Your task to perform on an android device: Open ESPN.com Image 0: 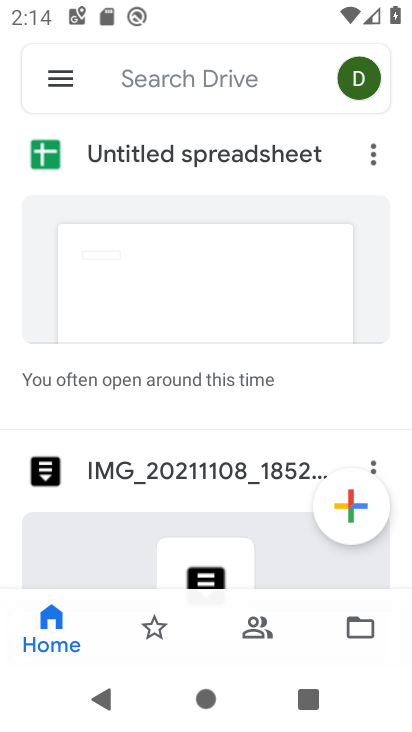
Step 0: press home button
Your task to perform on an android device: Open ESPN.com Image 1: 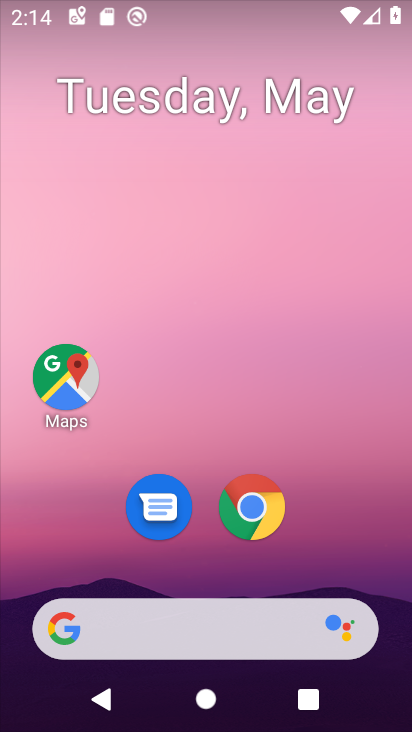
Step 1: drag from (231, 573) to (220, 172)
Your task to perform on an android device: Open ESPN.com Image 2: 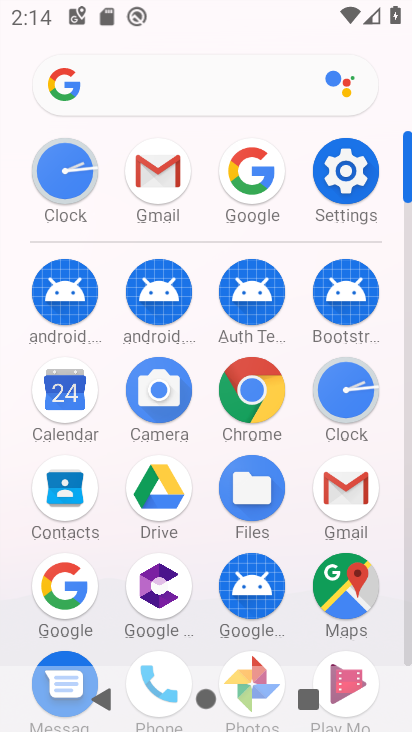
Step 2: click (223, 175)
Your task to perform on an android device: Open ESPN.com Image 3: 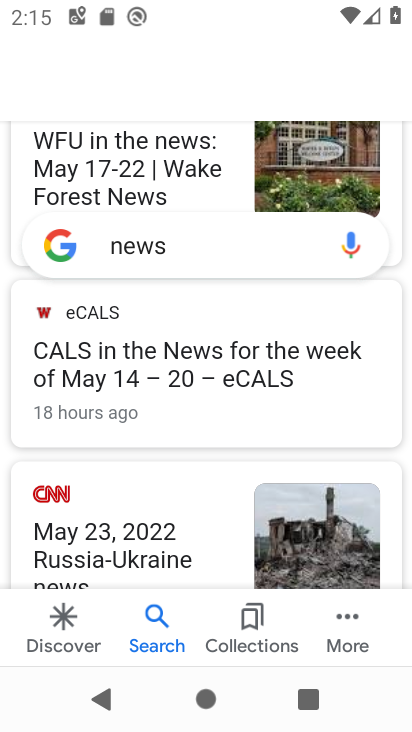
Step 3: press home button
Your task to perform on an android device: Open ESPN.com Image 4: 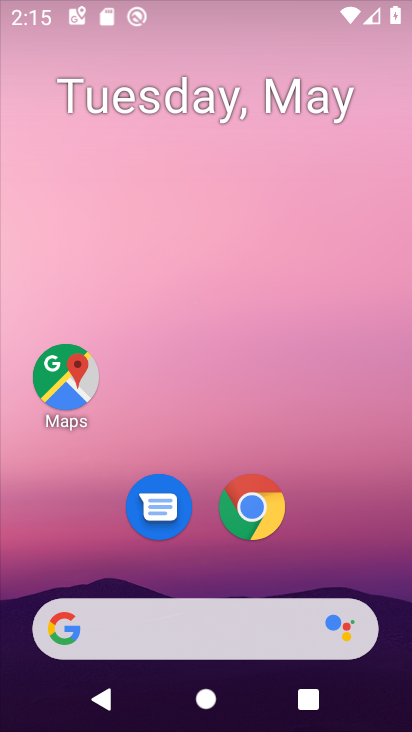
Step 4: click (226, 499)
Your task to perform on an android device: Open ESPN.com Image 5: 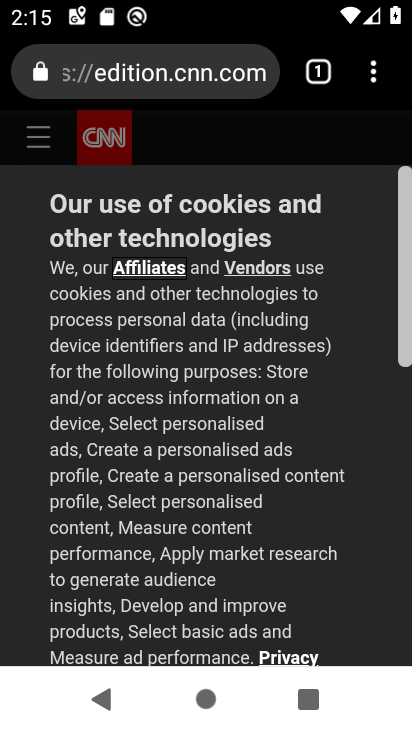
Step 5: click (317, 82)
Your task to perform on an android device: Open ESPN.com Image 6: 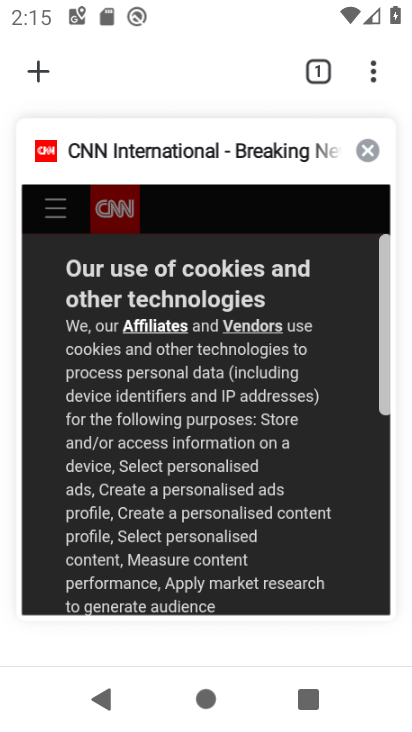
Step 6: click (30, 75)
Your task to perform on an android device: Open ESPN.com Image 7: 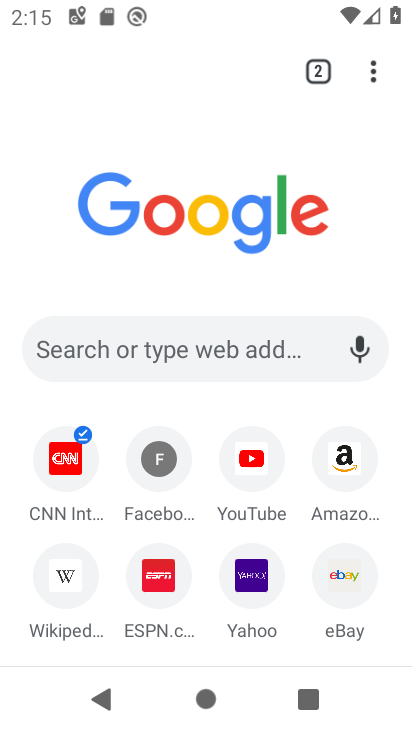
Step 7: click (167, 564)
Your task to perform on an android device: Open ESPN.com Image 8: 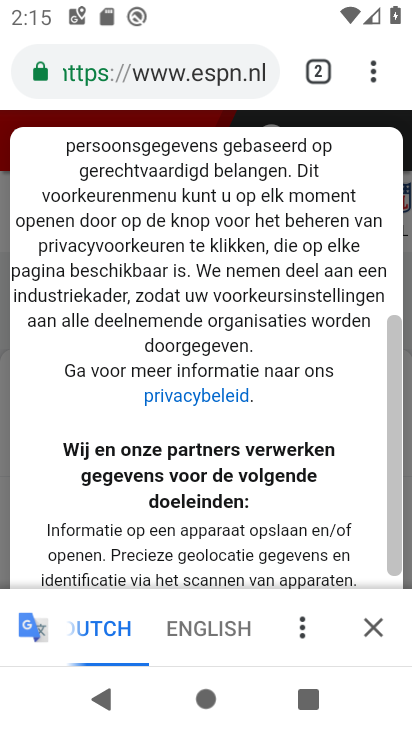
Step 8: task complete